Your task to perform on an android device: turn on showing notifications on the lock screen Image 0: 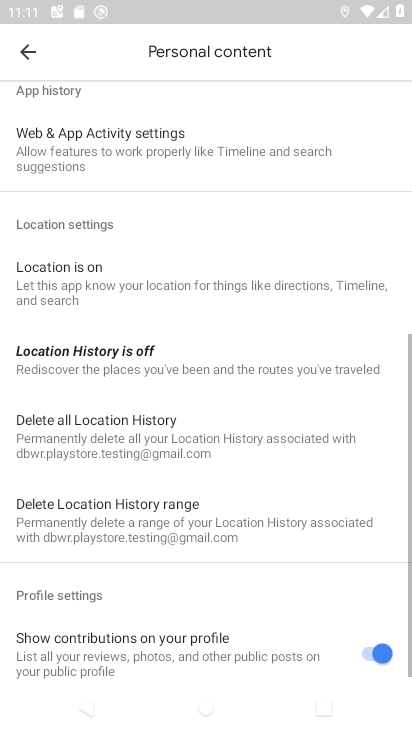
Step 0: click (130, 568)
Your task to perform on an android device: turn on showing notifications on the lock screen Image 1: 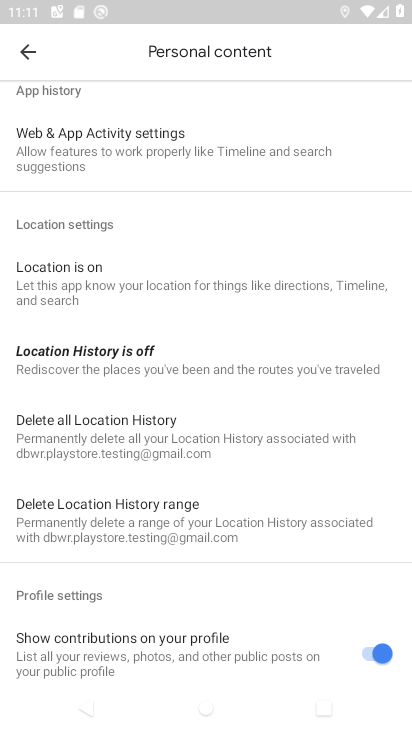
Step 1: press home button
Your task to perform on an android device: turn on showing notifications on the lock screen Image 2: 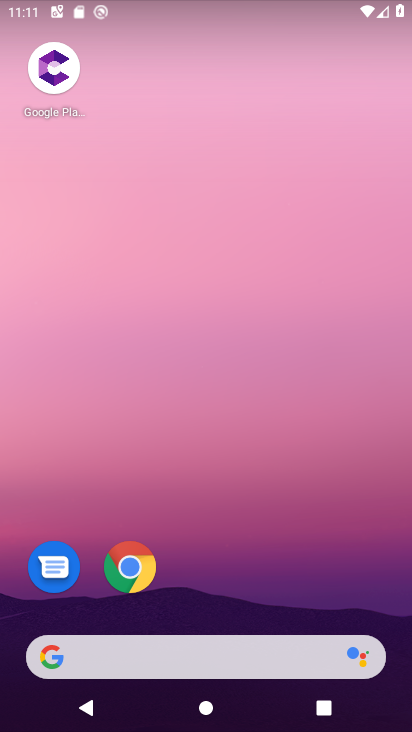
Step 2: drag from (186, 600) to (191, 9)
Your task to perform on an android device: turn on showing notifications on the lock screen Image 3: 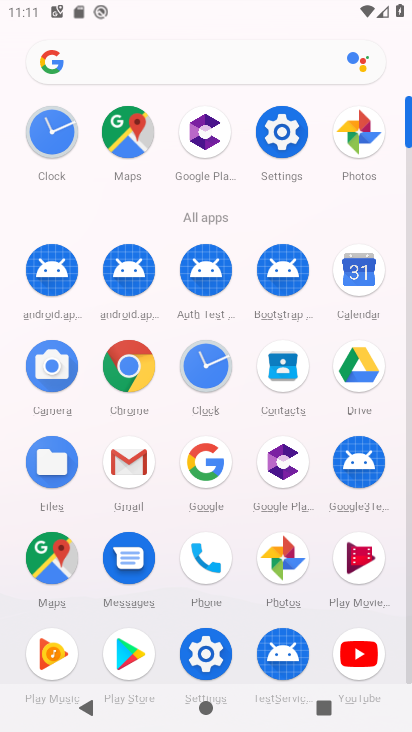
Step 3: click (295, 126)
Your task to perform on an android device: turn on showing notifications on the lock screen Image 4: 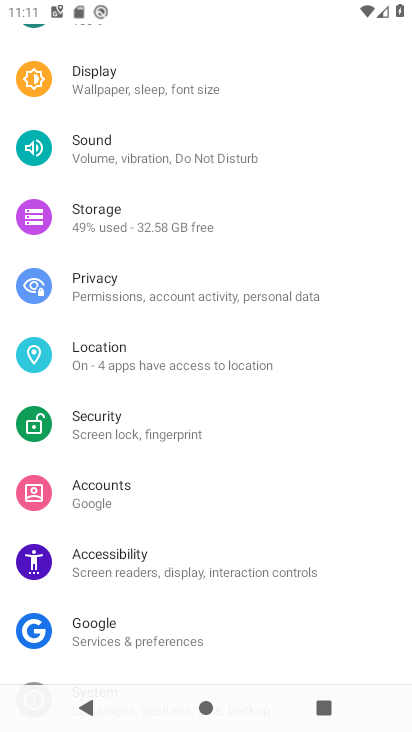
Step 4: drag from (180, 167) to (210, 701)
Your task to perform on an android device: turn on showing notifications on the lock screen Image 5: 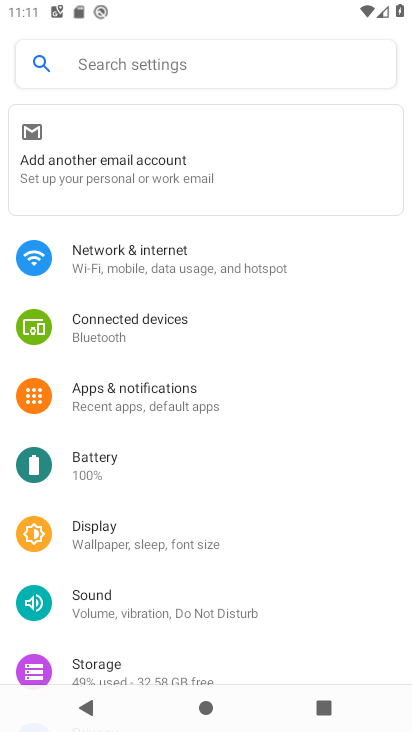
Step 5: click (121, 396)
Your task to perform on an android device: turn on showing notifications on the lock screen Image 6: 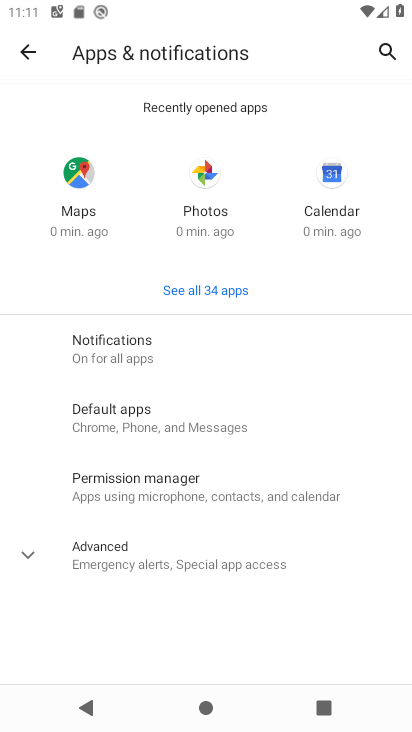
Step 6: click (124, 352)
Your task to perform on an android device: turn on showing notifications on the lock screen Image 7: 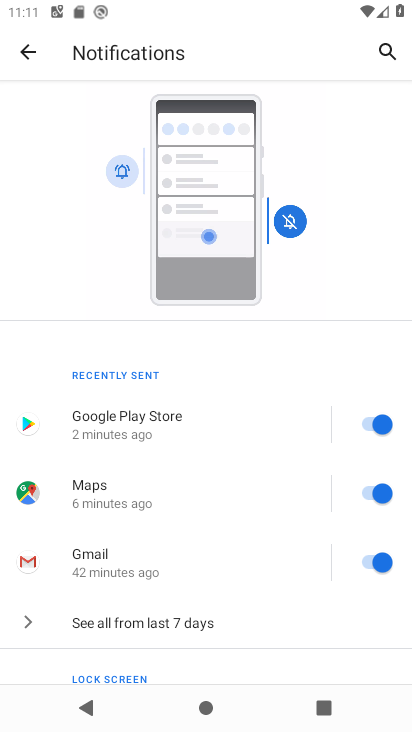
Step 7: drag from (181, 610) to (262, 105)
Your task to perform on an android device: turn on showing notifications on the lock screen Image 8: 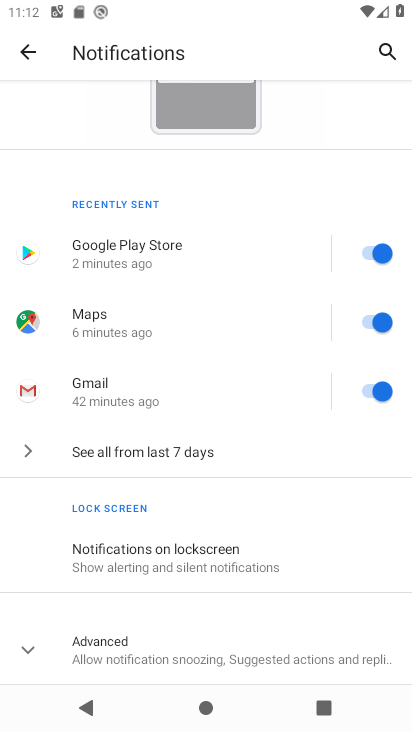
Step 8: click (190, 552)
Your task to perform on an android device: turn on showing notifications on the lock screen Image 9: 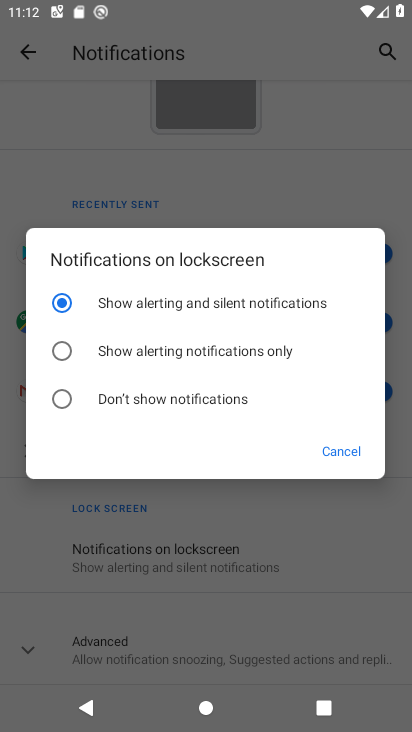
Step 9: task complete